Your task to perform on an android device: Open the Play Movies app and select the watchlist tab. Image 0: 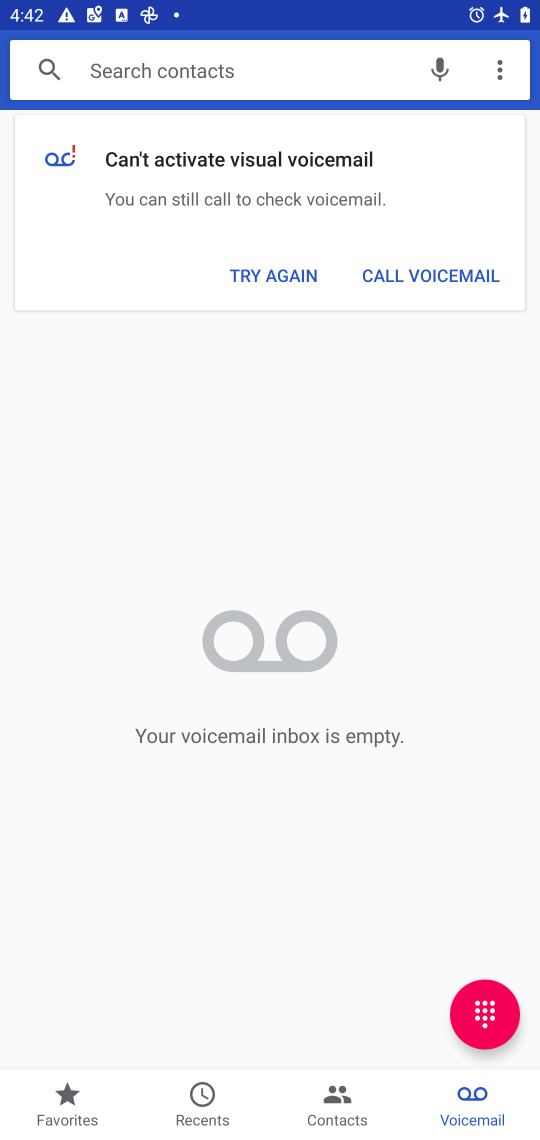
Step 0: press home button
Your task to perform on an android device: Open the Play Movies app and select the watchlist tab. Image 1: 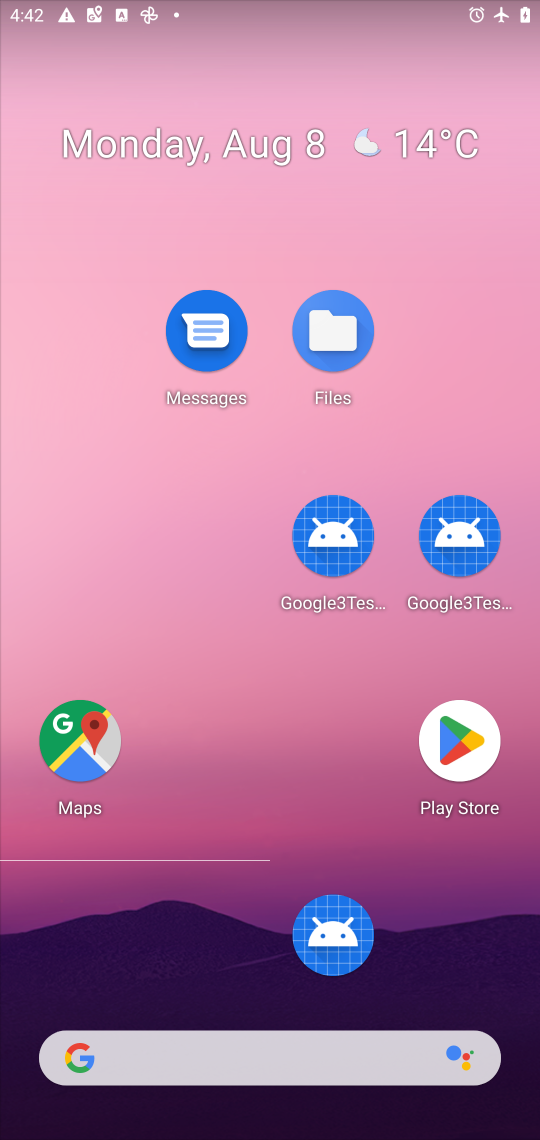
Step 1: drag from (349, 1060) to (334, 224)
Your task to perform on an android device: Open the Play Movies app and select the watchlist tab. Image 2: 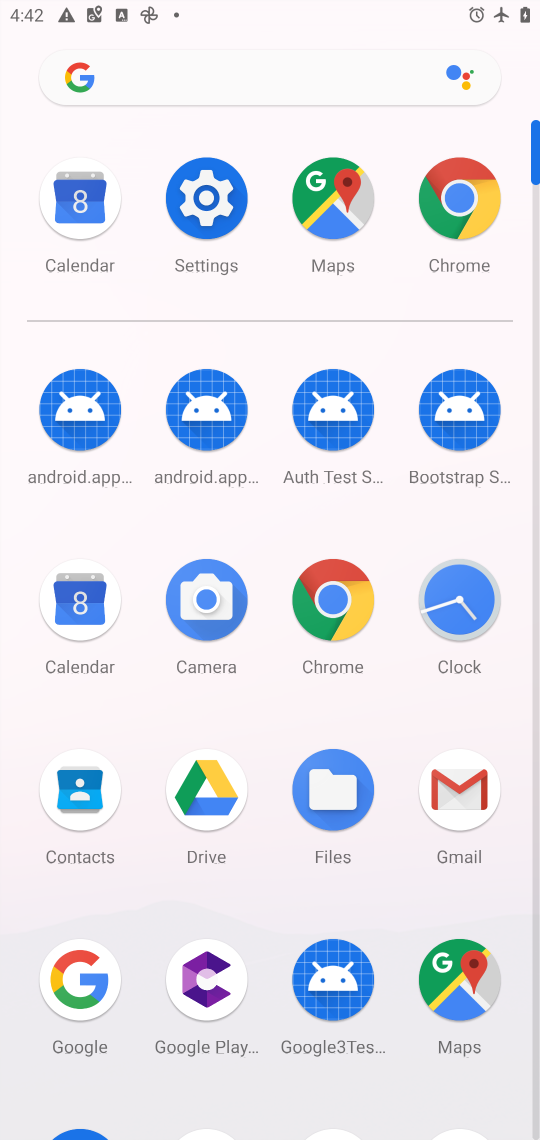
Step 2: drag from (399, 936) to (399, 527)
Your task to perform on an android device: Open the Play Movies app and select the watchlist tab. Image 3: 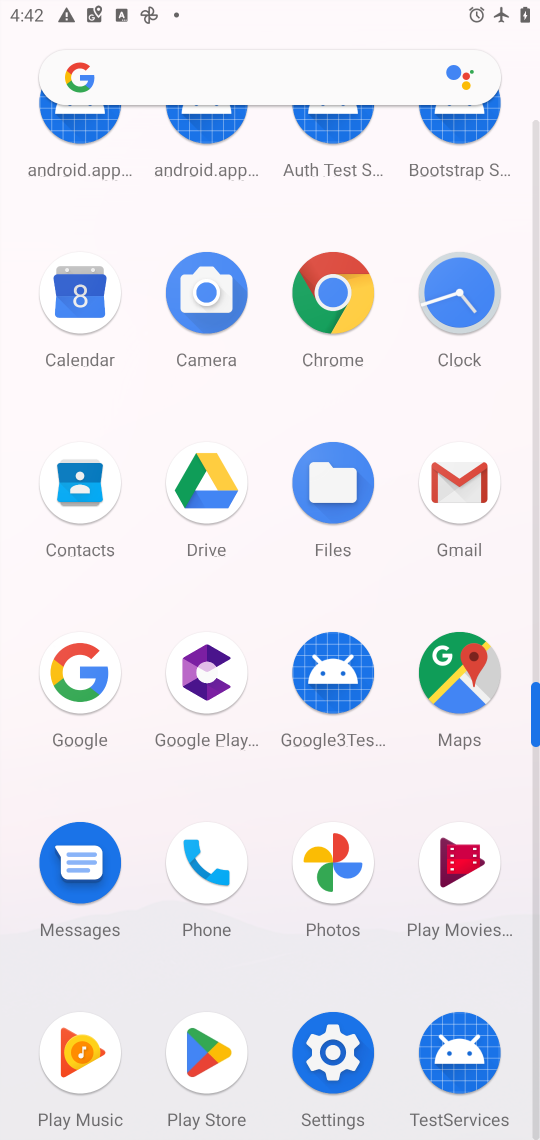
Step 3: click (453, 865)
Your task to perform on an android device: Open the Play Movies app and select the watchlist tab. Image 4: 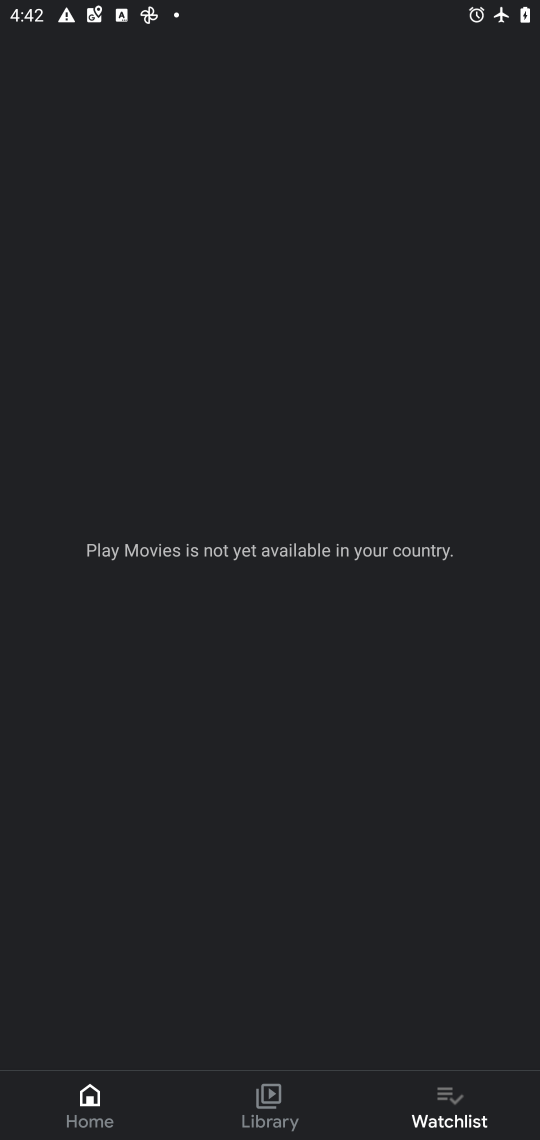
Step 4: click (462, 1111)
Your task to perform on an android device: Open the Play Movies app and select the watchlist tab. Image 5: 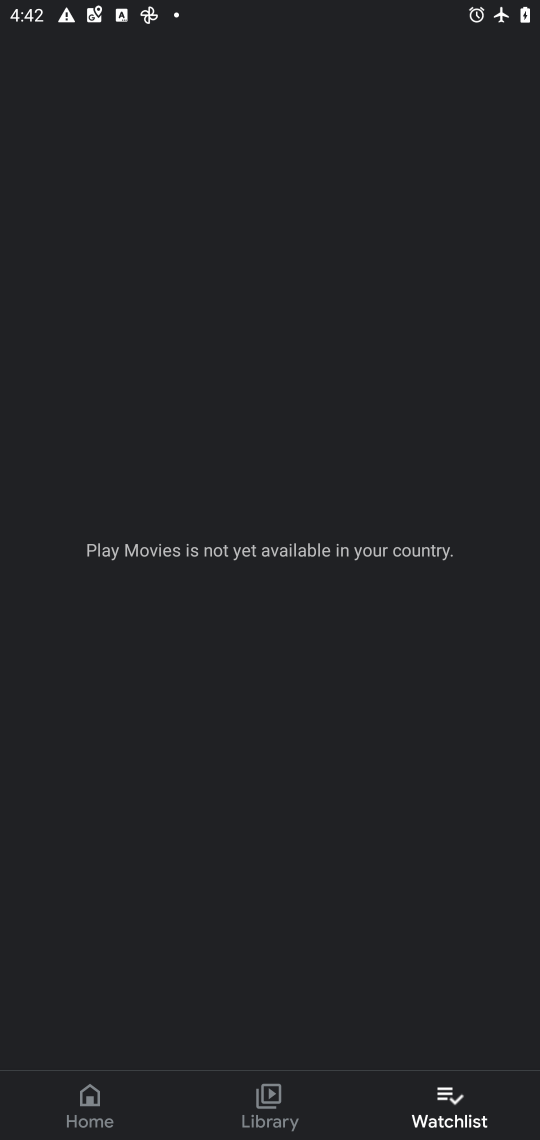
Step 5: task complete